Your task to perform on an android device: turn on javascript in the chrome app Image 0: 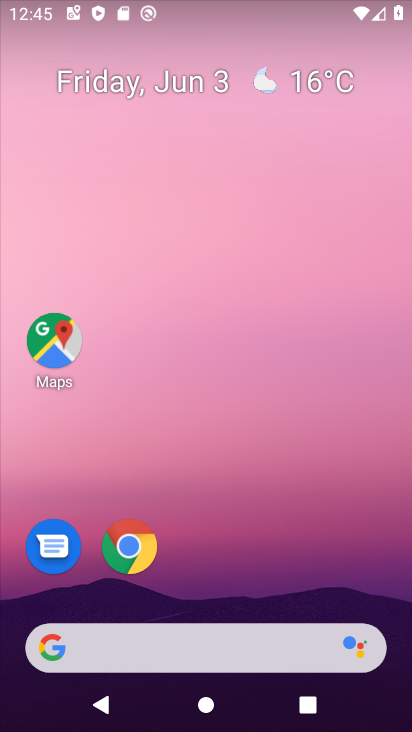
Step 0: click (133, 545)
Your task to perform on an android device: turn on javascript in the chrome app Image 1: 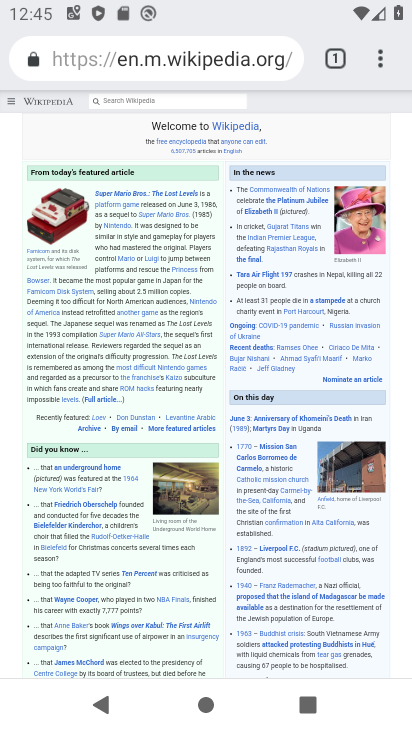
Step 1: click (377, 63)
Your task to perform on an android device: turn on javascript in the chrome app Image 2: 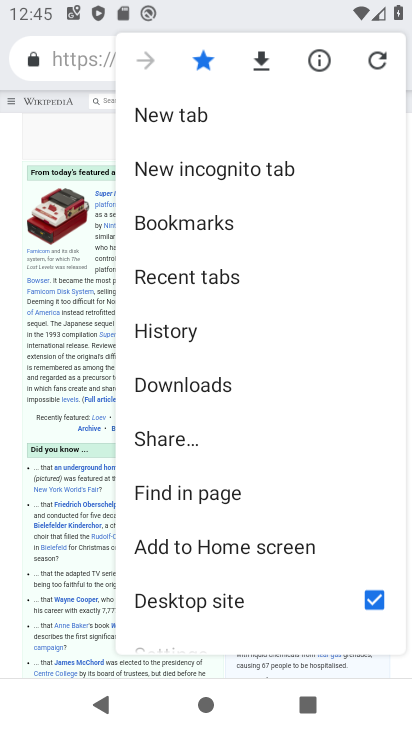
Step 2: drag from (243, 556) to (243, 177)
Your task to perform on an android device: turn on javascript in the chrome app Image 3: 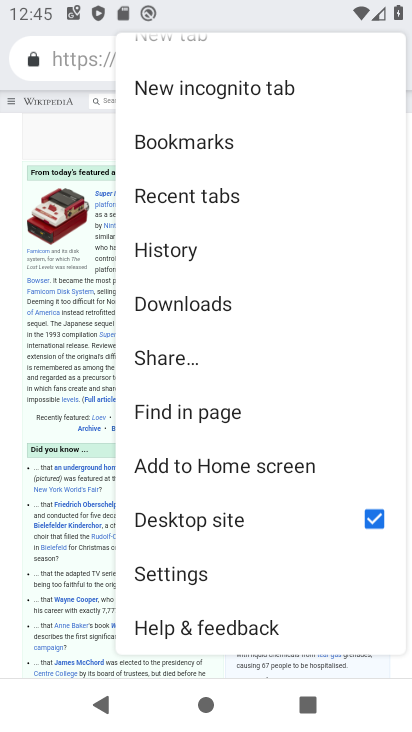
Step 3: click (179, 565)
Your task to perform on an android device: turn on javascript in the chrome app Image 4: 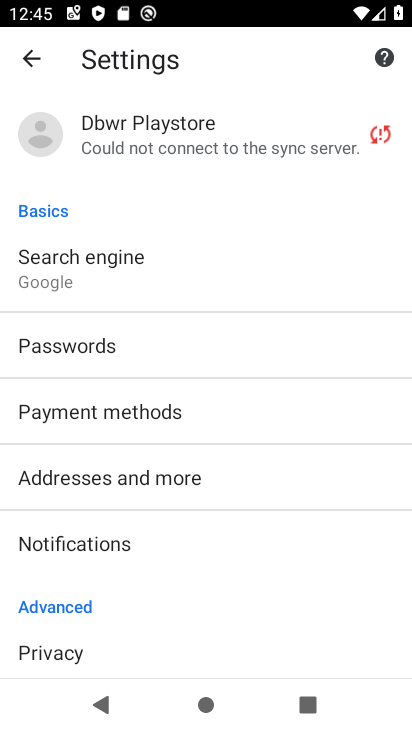
Step 4: drag from (187, 551) to (178, 266)
Your task to perform on an android device: turn on javascript in the chrome app Image 5: 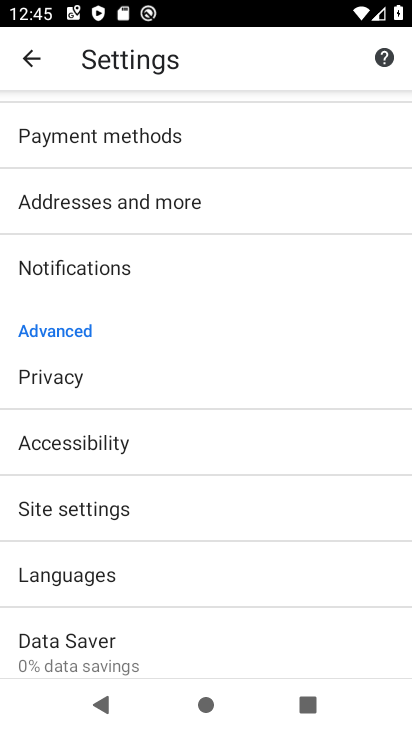
Step 5: click (103, 506)
Your task to perform on an android device: turn on javascript in the chrome app Image 6: 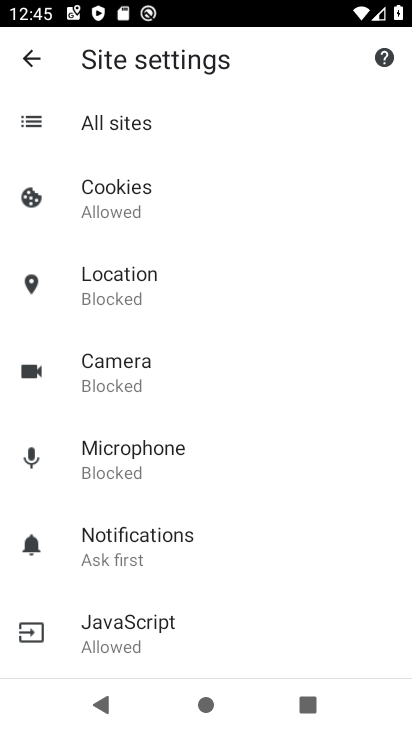
Step 6: click (126, 625)
Your task to perform on an android device: turn on javascript in the chrome app Image 7: 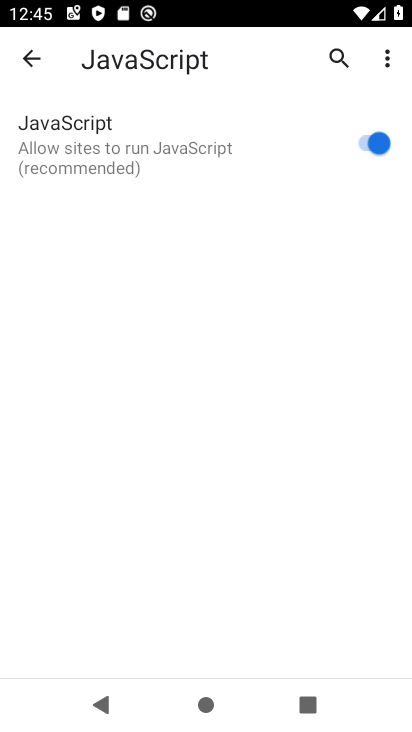
Step 7: task complete